Your task to perform on an android device: Open calendar and show me the second week of next month Image 0: 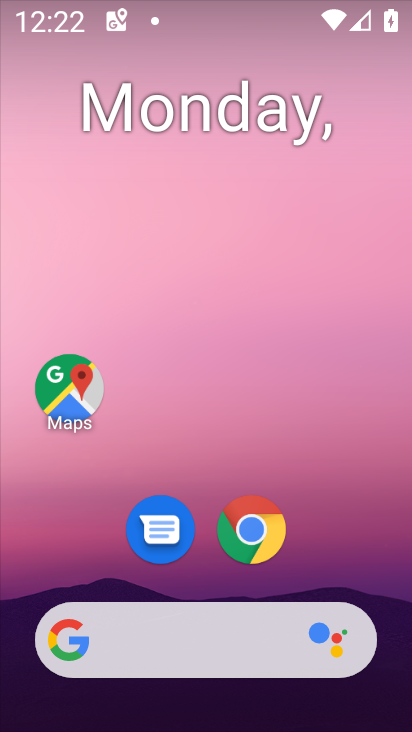
Step 0: drag from (238, 633) to (181, 0)
Your task to perform on an android device: Open calendar and show me the second week of next month Image 1: 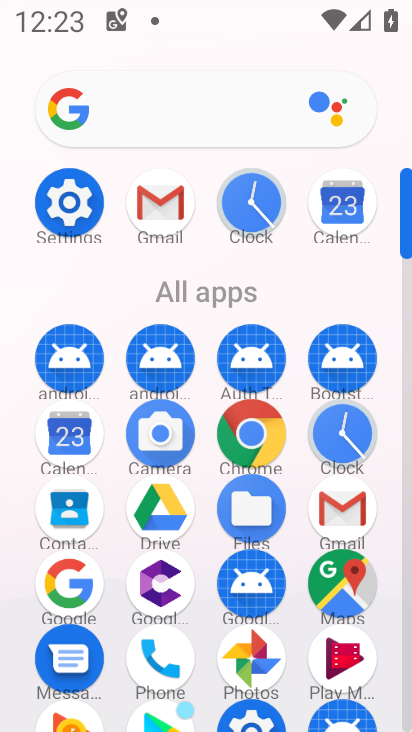
Step 1: click (77, 443)
Your task to perform on an android device: Open calendar and show me the second week of next month Image 2: 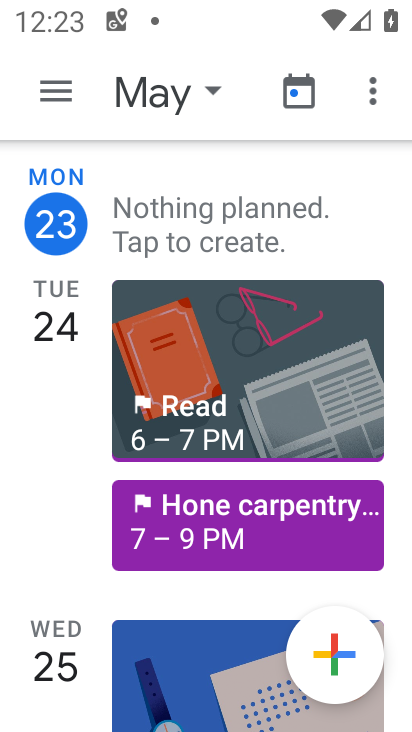
Step 2: click (56, 100)
Your task to perform on an android device: Open calendar and show me the second week of next month Image 3: 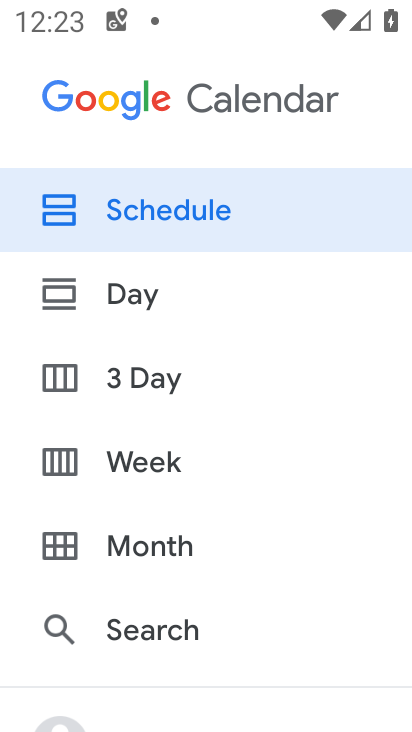
Step 3: click (162, 558)
Your task to perform on an android device: Open calendar and show me the second week of next month Image 4: 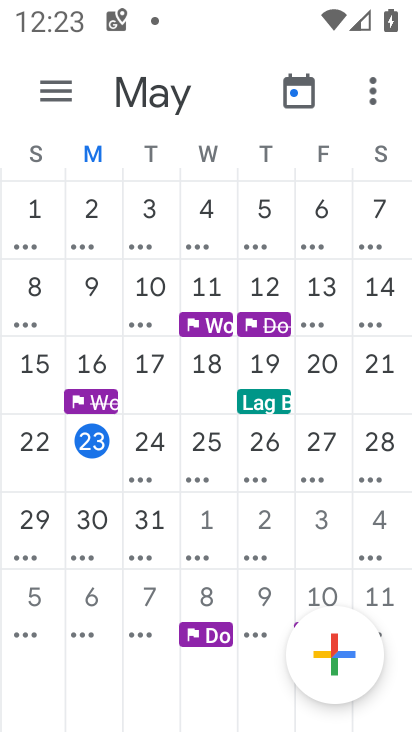
Step 4: task complete